Your task to perform on an android device: turn off wifi Image 0: 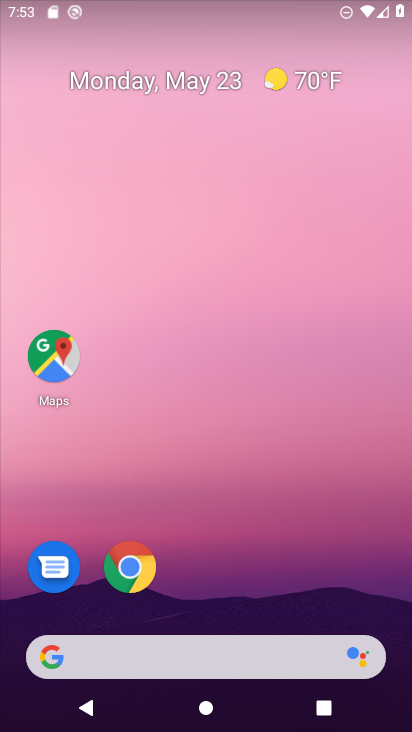
Step 0: drag from (159, 526) to (189, 110)
Your task to perform on an android device: turn off wifi Image 1: 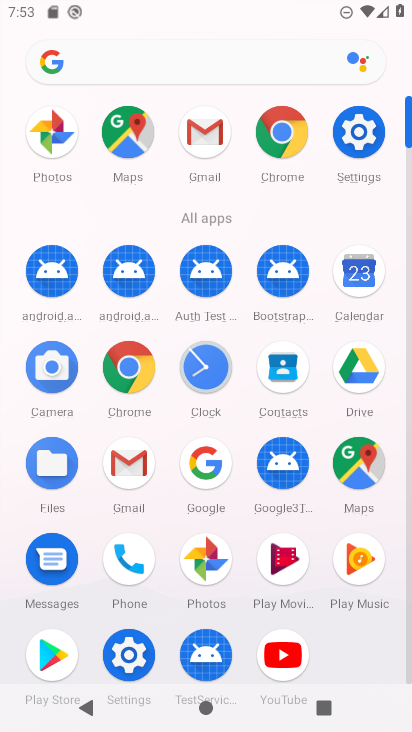
Step 1: click (357, 135)
Your task to perform on an android device: turn off wifi Image 2: 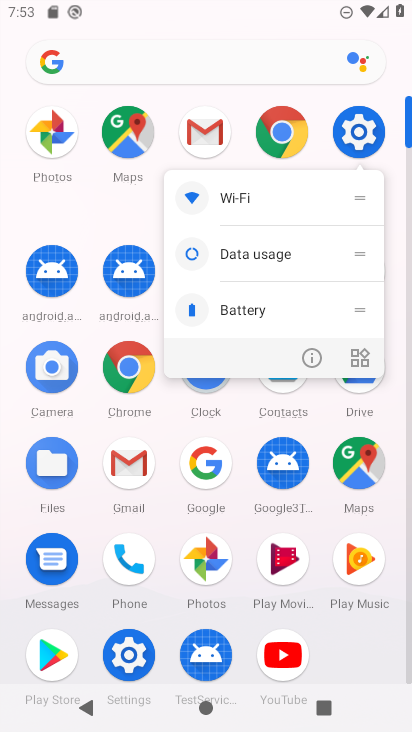
Step 2: click (235, 196)
Your task to perform on an android device: turn off wifi Image 3: 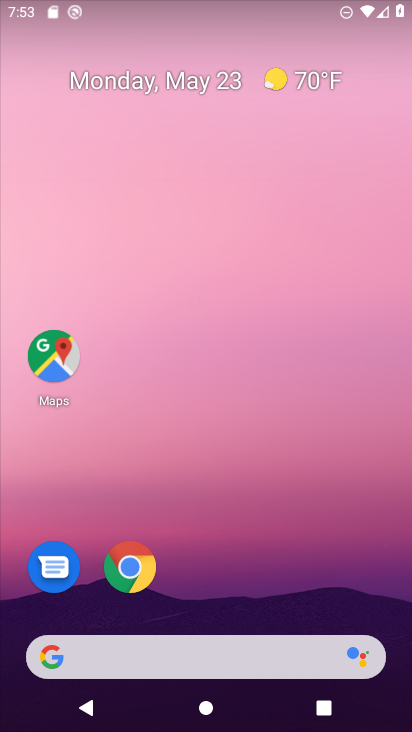
Step 3: click (244, 245)
Your task to perform on an android device: turn off wifi Image 4: 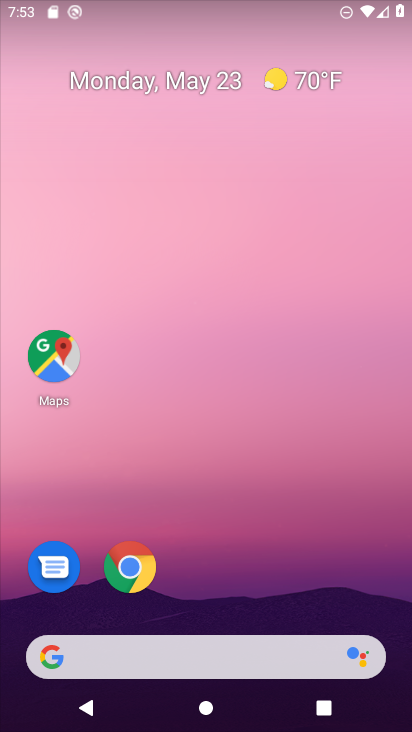
Step 4: drag from (183, 596) to (221, 140)
Your task to perform on an android device: turn off wifi Image 5: 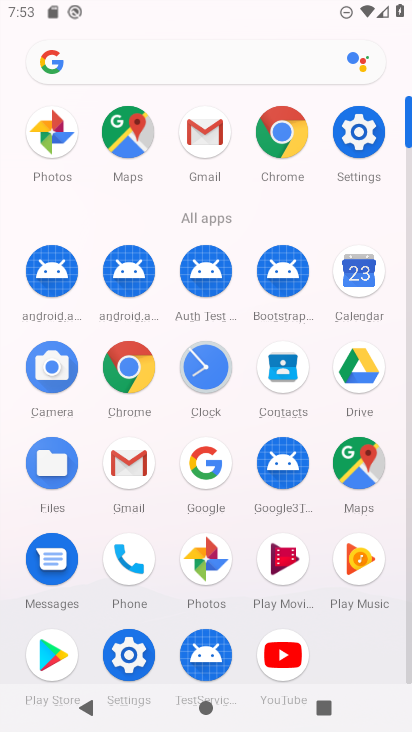
Step 5: click (362, 121)
Your task to perform on an android device: turn off wifi Image 6: 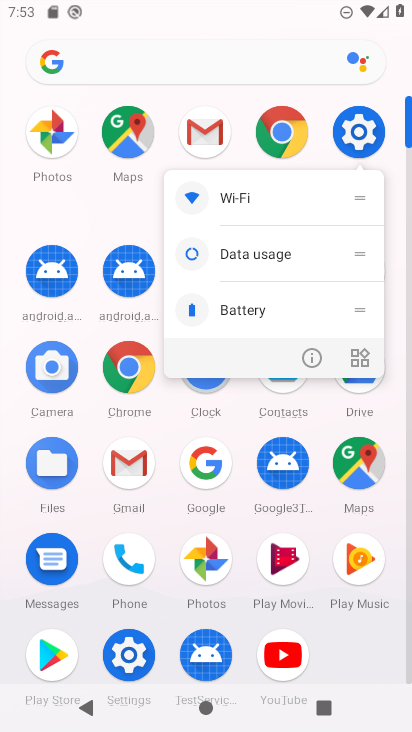
Step 6: click (227, 201)
Your task to perform on an android device: turn off wifi Image 7: 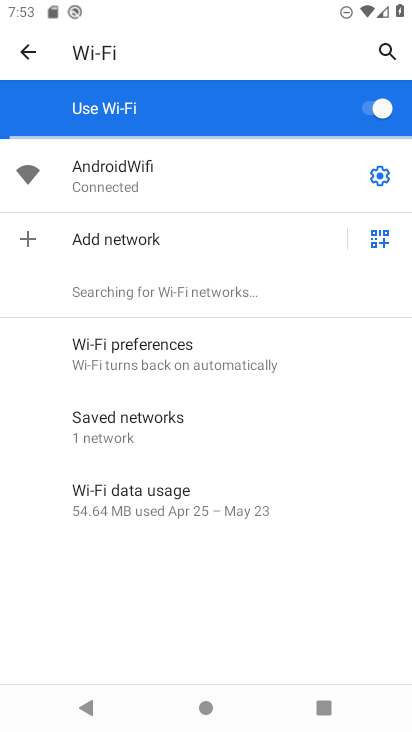
Step 7: click (354, 114)
Your task to perform on an android device: turn off wifi Image 8: 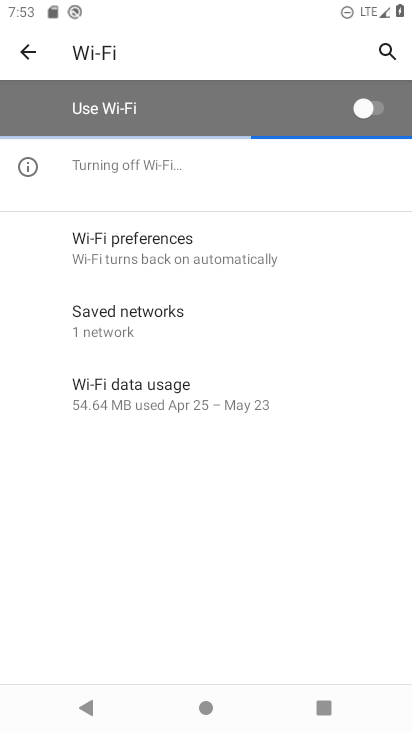
Step 8: task complete